Your task to perform on an android device: Open settings Image 0: 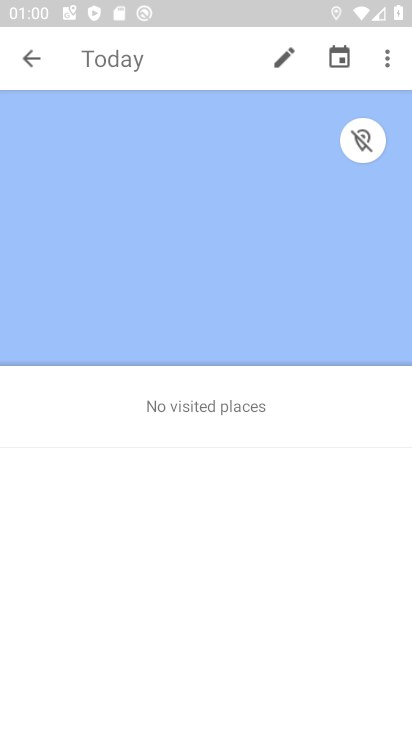
Step 0: press back button
Your task to perform on an android device: Open settings Image 1: 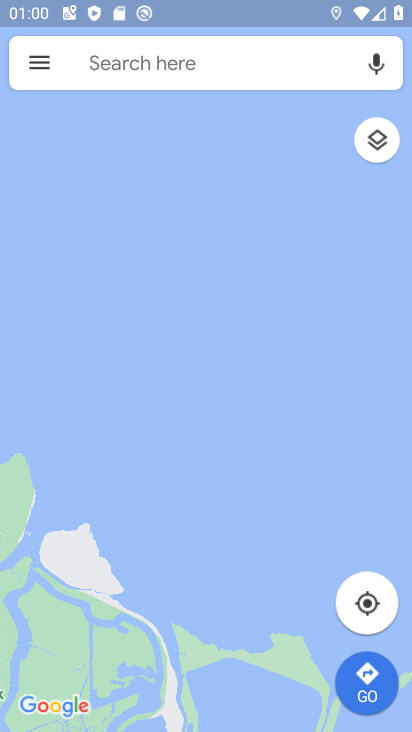
Step 1: press back button
Your task to perform on an android device: Open settings Image 2: 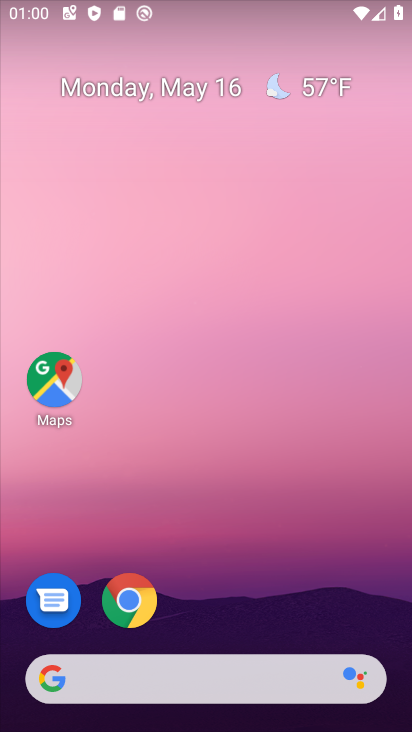
Step 2: drag from (220, 641) to (297, 71)
Your task to perform on an android device: Open settings Image 3: 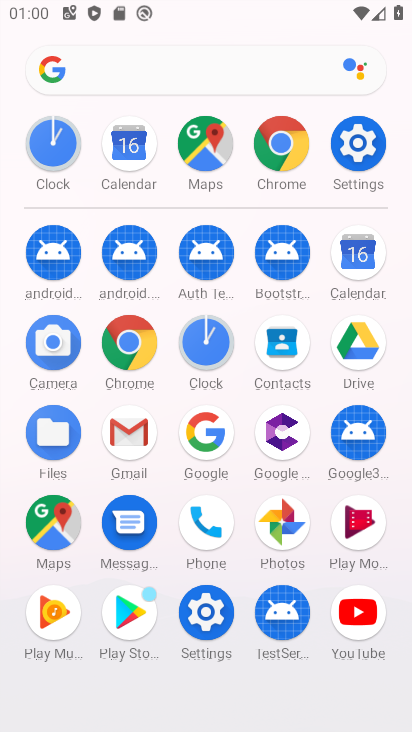
Step 3: click (363, 138)
Your task to perform on an android device: Open settings Image 4: 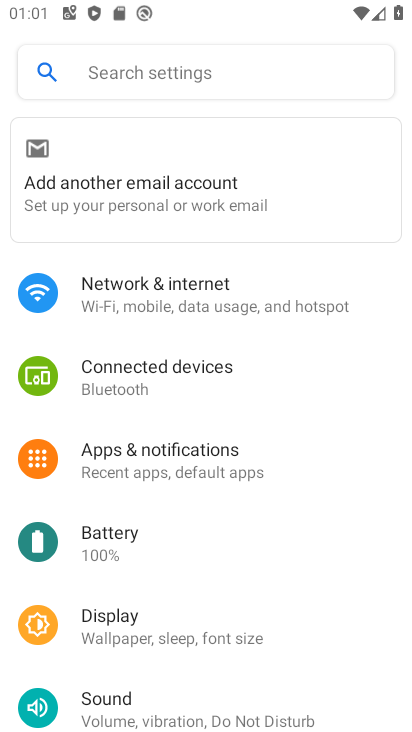
Step 4: task complete